Your task to perform on an android device: Find coffee shops on Maps Image 0: 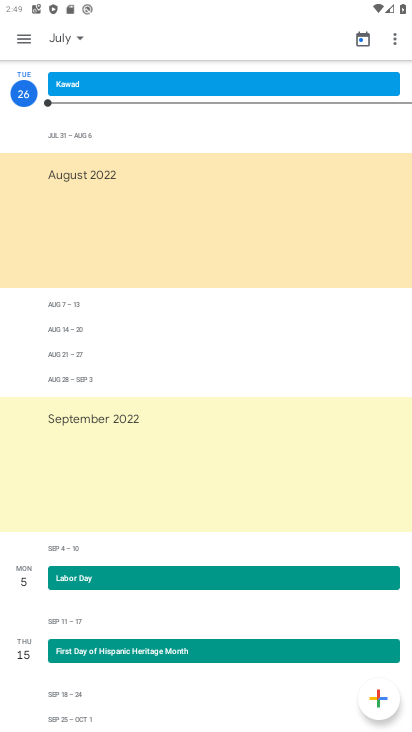
Step 0: press home button
Your task to perform on an android device: Find coffee shops on Maps Image 1: 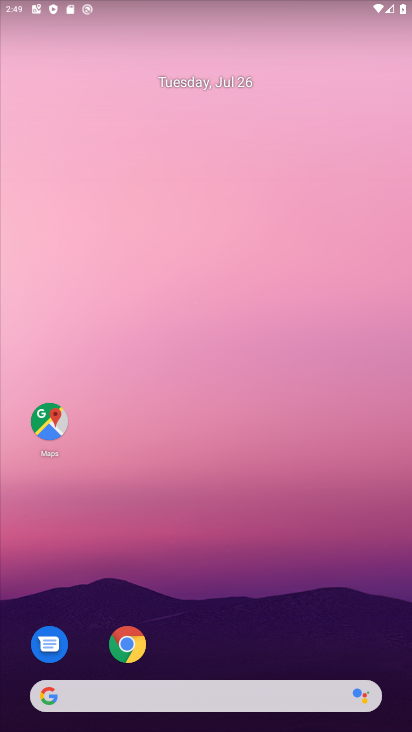
Step 1: click (60, 434)
Your task to perform on an android device: Find coffee shops on Maps Image 2: 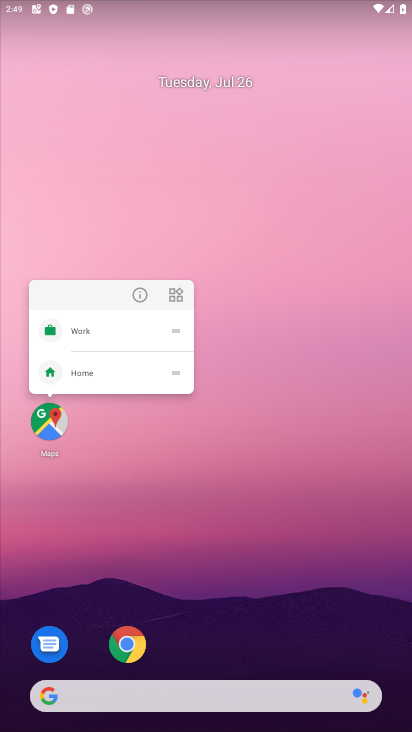
Step 2: click (60, 434)
Your task to perform on an android device: Find coffee shops on Maps Image 3: 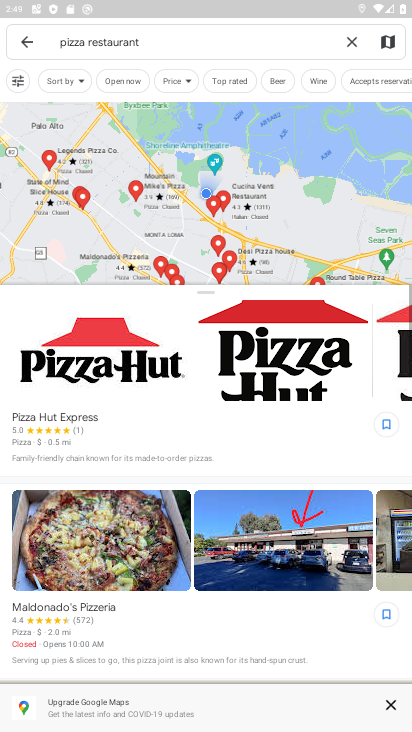
Step 3: click (344, 42)
Your task to perform on an android device: Find coffee shops on Maps Image 4: 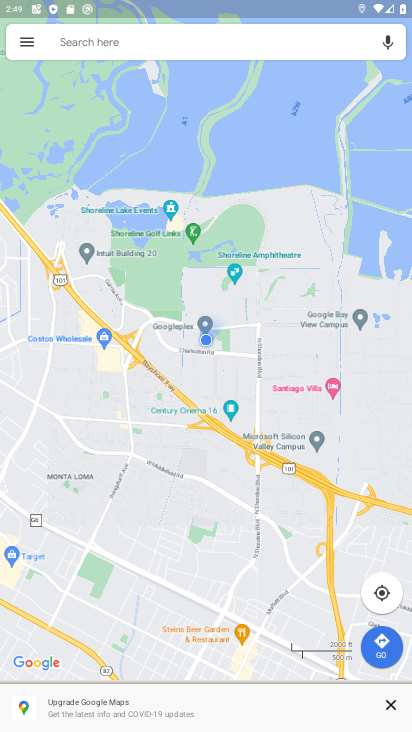
Step 4: click (160, 41)
Your task to perform on an android device: Find coffee shops on Maps Image 5: 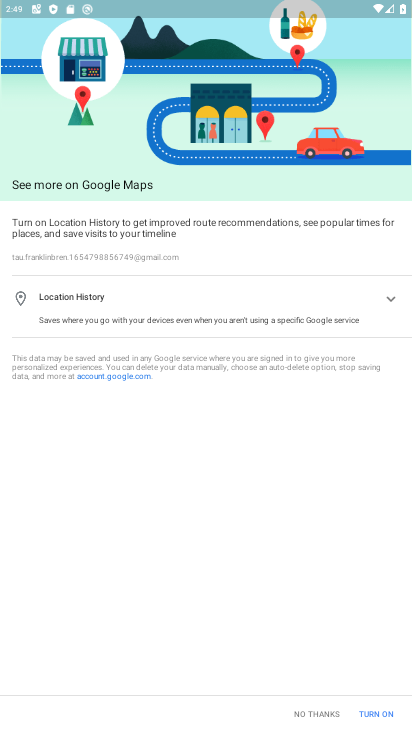
Step 5: click (365, 715)
Your task to perform on an android device: Find coffee shops on Maps Image 6: 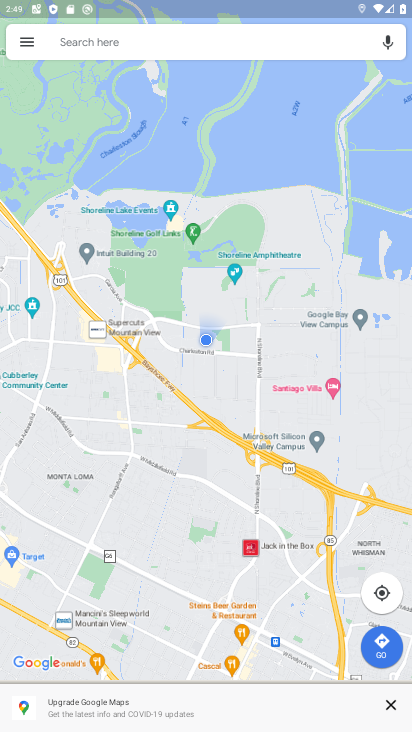
Step 6: click (124, 47)
Your task to perform on an android device: Find coffee shops on Maps Image 7: 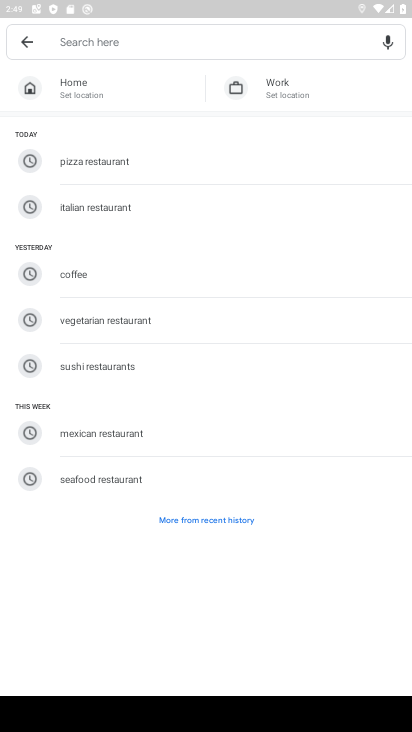
Step 7: click (68, 270)
Your task to perform on an android device: Find coffee shops on Maps Image 8: 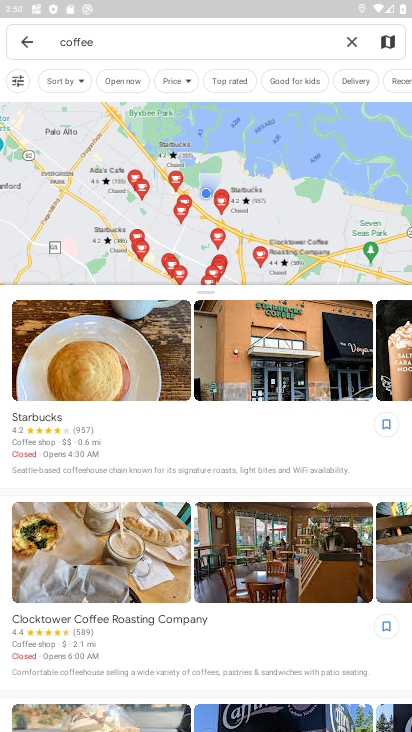
Step 8: task complete